Your task to perform on an android device: Go to notification settings Image 0: 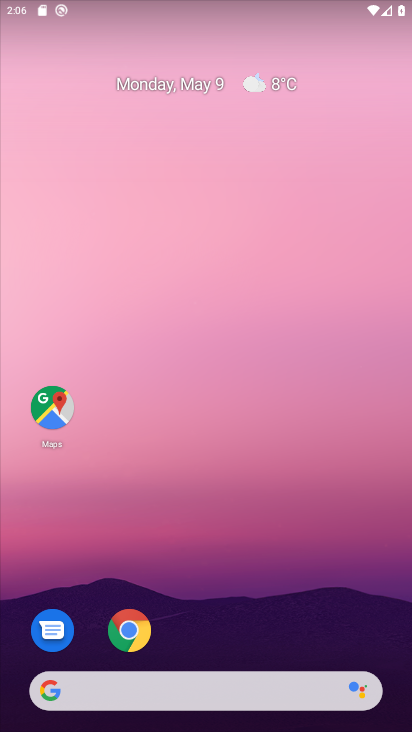
Step 0: drag from (241, 645) to (288, 71)
Your task to perform on an android device: Go to notification settings Image 1: 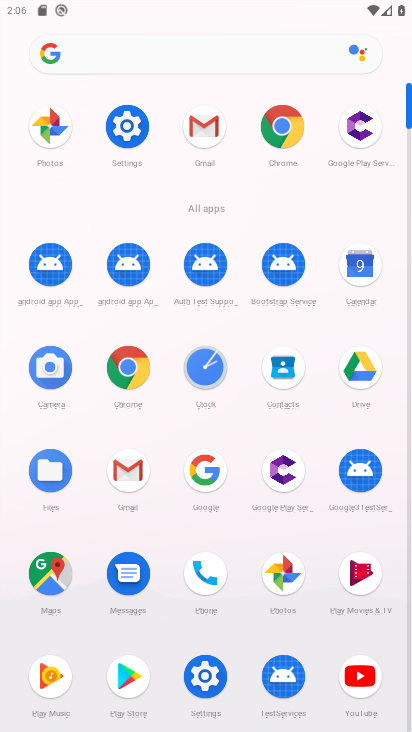
Step 1: click (154, 143)
Your task to perform on an android device: Go to notification settings Image 2: 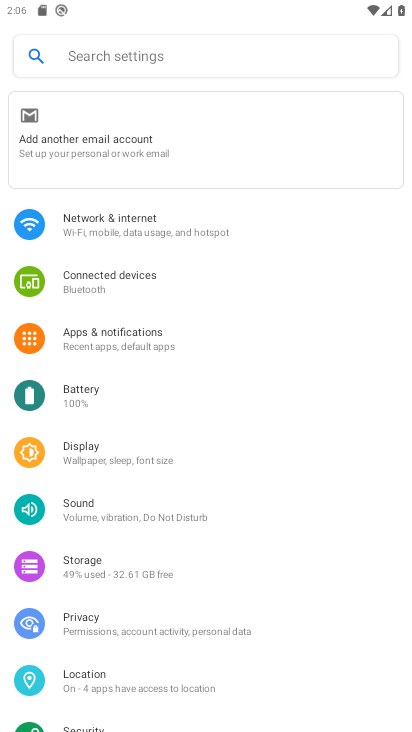
Step 2: click (159, 343)
Your task to perform on an android device: Go to notification settings Image 3: 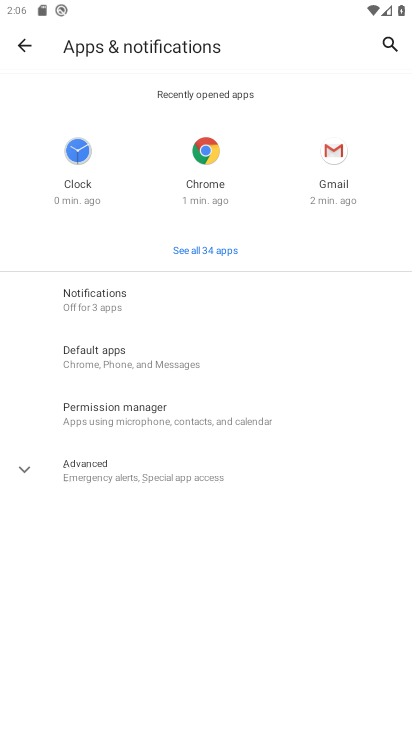
Step 3: click (146, 303)
Your task to perform on an android device: Go to notification settings Image 4: 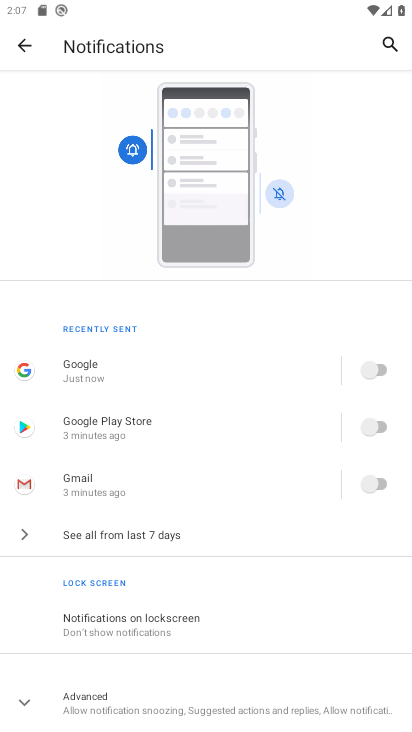
Step 4: task complete